Your task to perform on an android device: Open Yahoo.com Image 0: 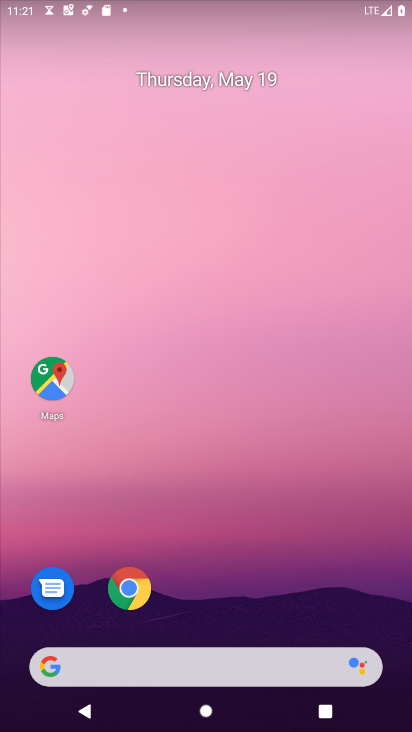
Step 0: click (135, 591)
Your task to perform on an android device: Open Yahoo.com Image 1: 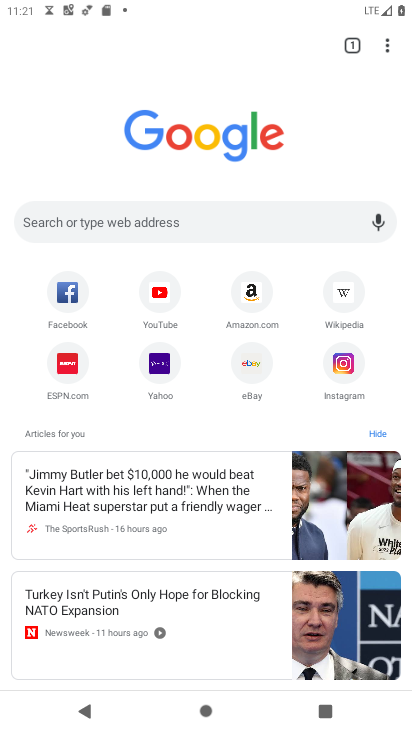
Step 1: click (167, 359)
Your task to perform on an android device: Open Yahoo.com Image 2: 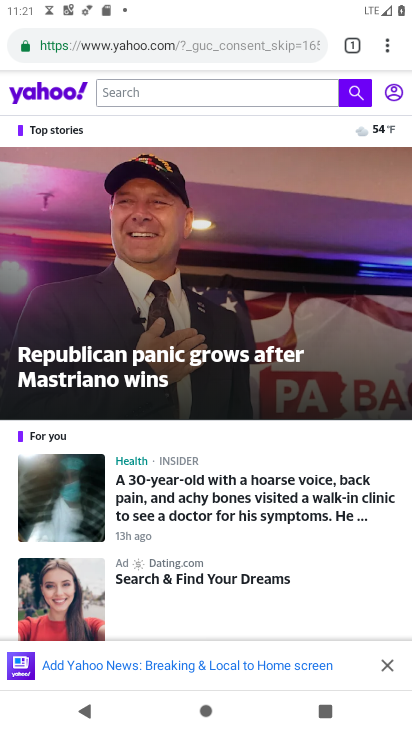
Step 2: task complete